Your task to perform on an android device: Show me recent news Image 0: 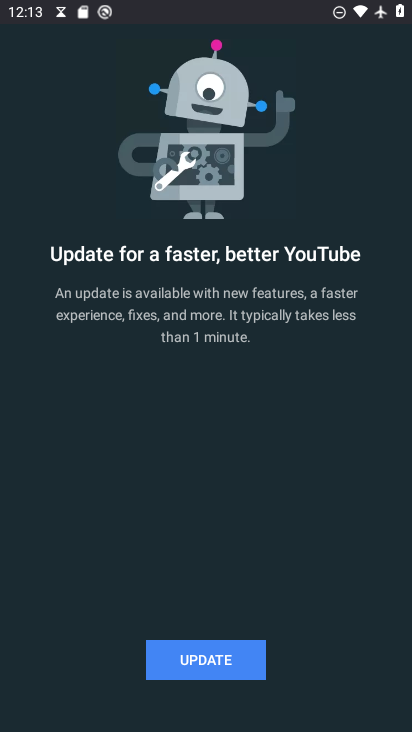
Step 0: press back button
Your task to perform on an android device: Show me recent news Image 1: 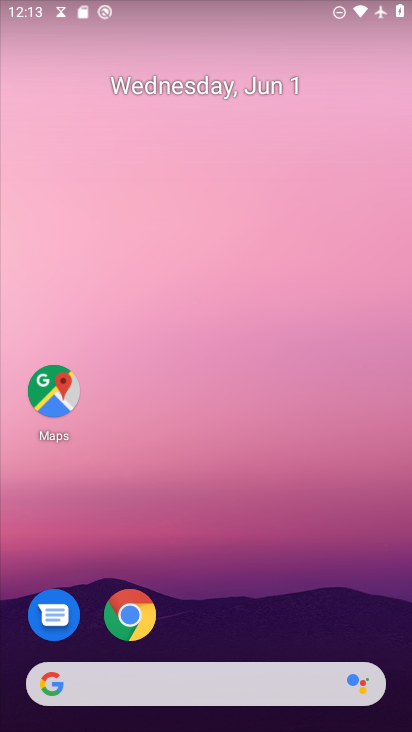
Step 1: drag from (169, 598) to (259, 56)
Your task to perform on an android device: Show me recent news Image 2: 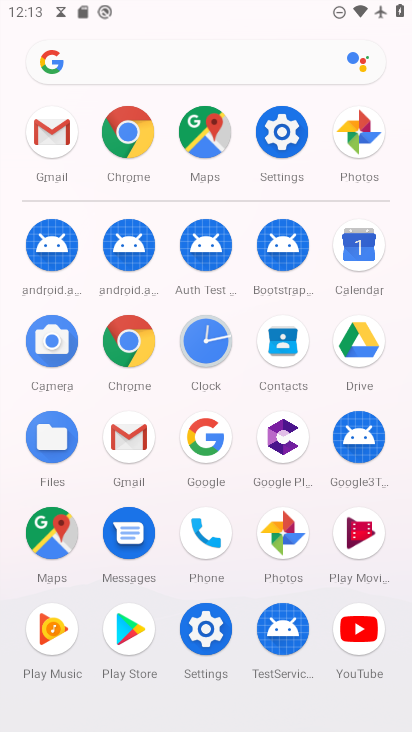
Step 2: click (145, 352)
Your task to perform on an android device: Show me recent news Image 3: 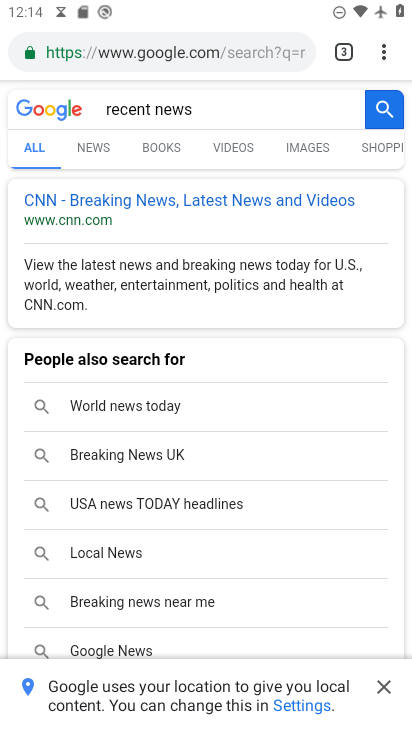
Step 3: task complete